Your task to perform on an android device: Go to network settings Image 0: 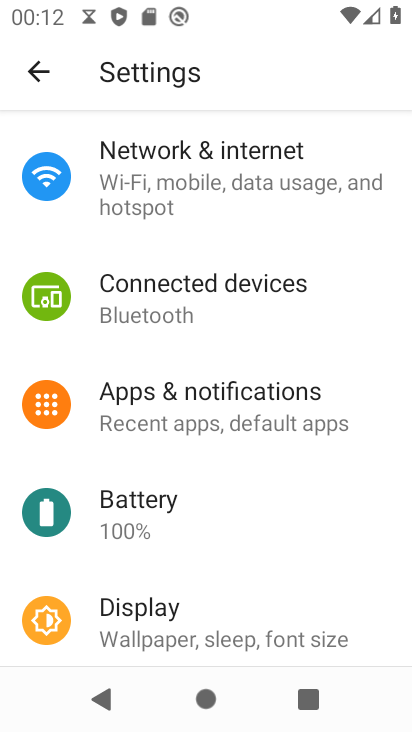
Step 0: click (233, 144)
Your task to perform on an android device: Go to network settings Image 1: 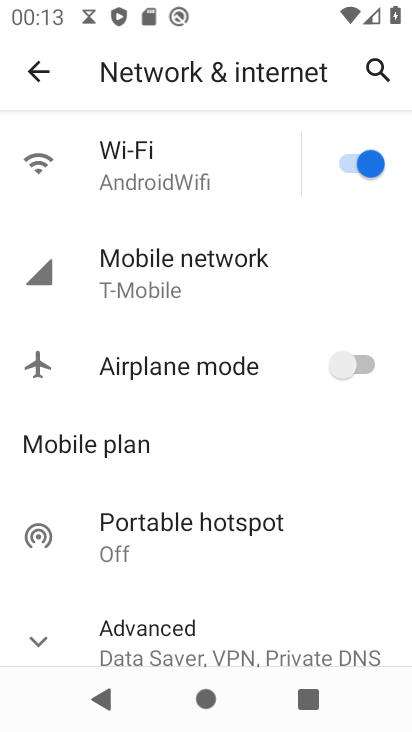
Step 1: task complete